Your task to perform on an android device: toggle improve location accuracy Image 0: 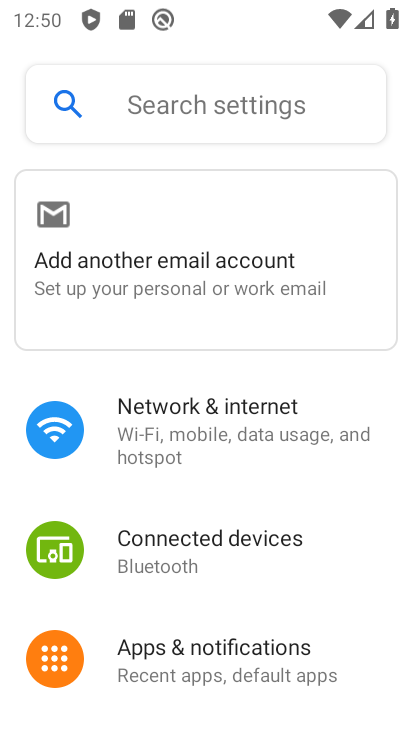
Step 0: press home button
Your task to perform on an android device: toggle improve location accuracy Image 1: 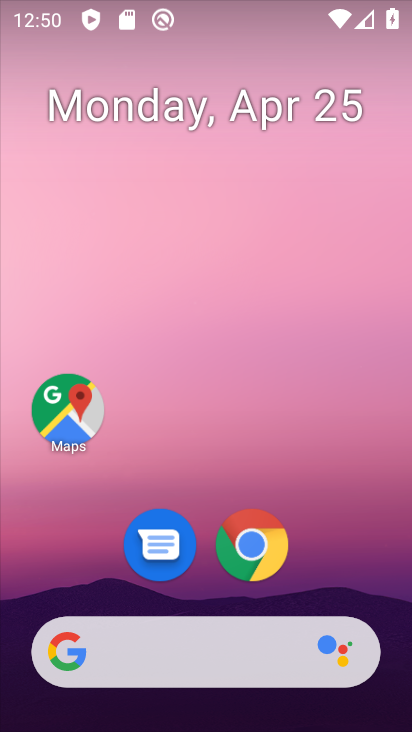
Step 1: drag from (288, 455) to (65, 139)
Your task to perform on an android device: toggle improve location accuracy Image 2: 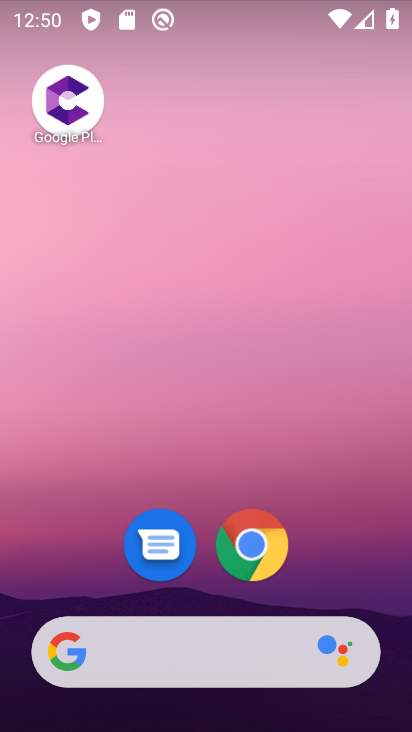
Step 2: drag from (313, 472) to (236, 48)
Your task to perform on an android device: toggle improve location accuracy Image 3: 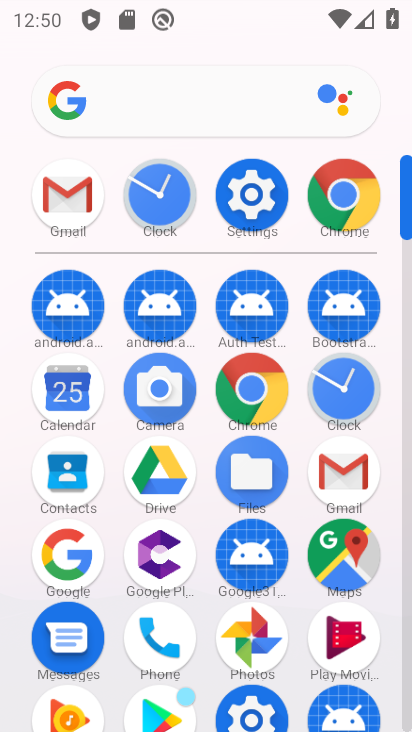
Step 3: click (262, 194)
Your task to perform on an android device: toggle improve location accuracy Image 4: 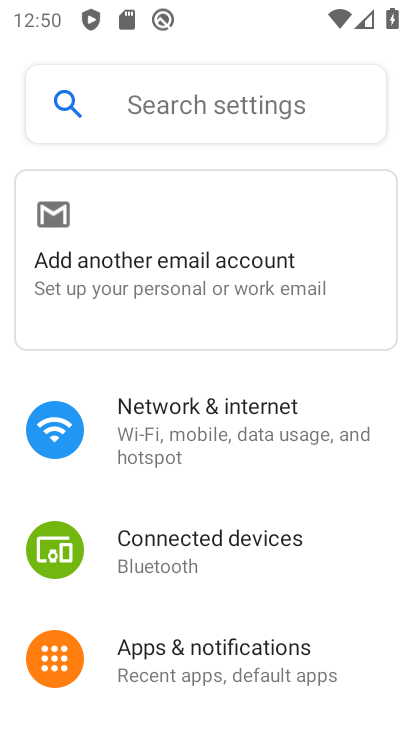
Step 4: drag from (173, 679) to (162, 172)
Your task to perform on an android device: toggle improve location accuracy Image 5: 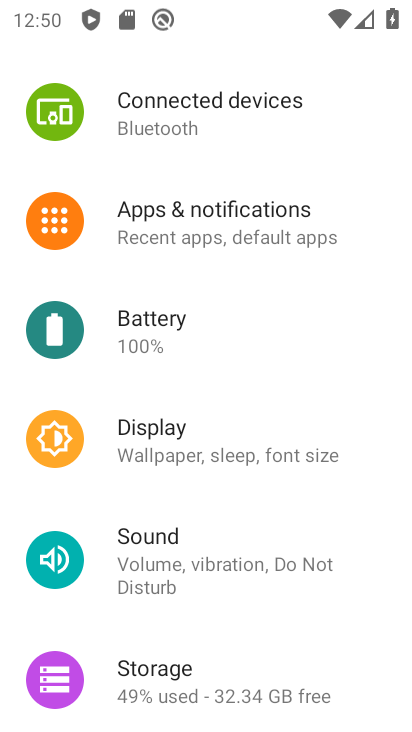
Step 5: drag from (198, 662) to (180, 143)
Your task to perform on an android device: toggle improve location accuracy Image 6: 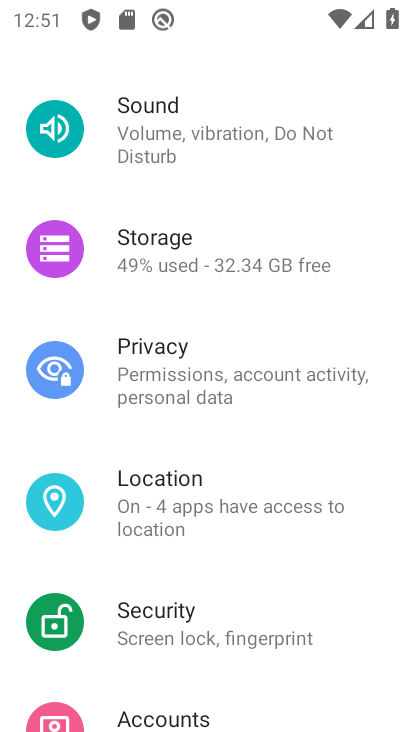
Step 6: click (165, 498)
Your task to perform on an android device: toggle improve location accuracy Image 7: 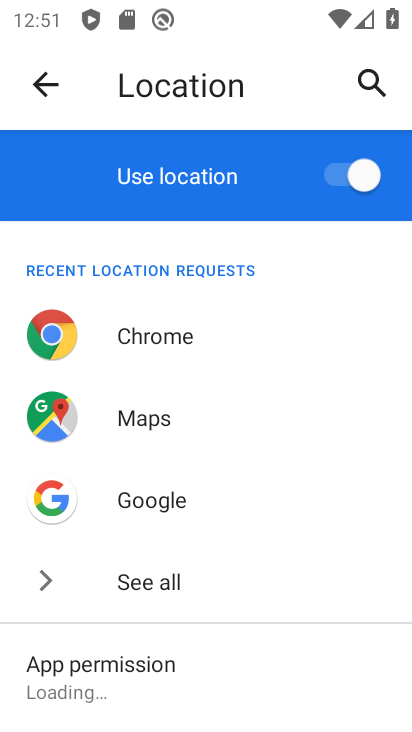
Step 7: drag from (178, 682) to (205, 286)
Your task to perform on an android device: toggle improve location accuracy Image 8: 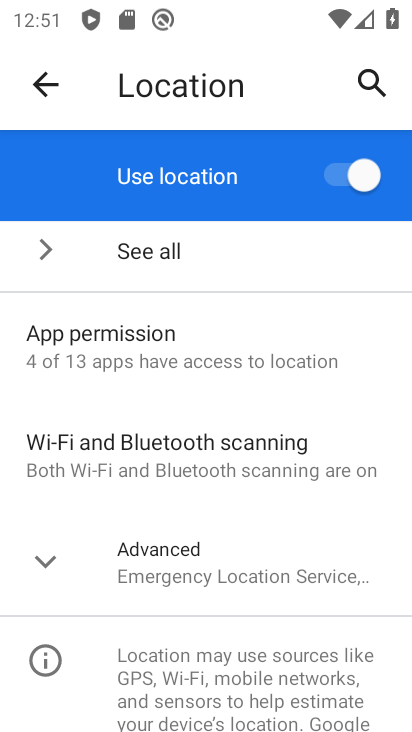
Step 8: click (189, 566)
Your task to perform on an android device: toggle improve location accuracy Image 9: 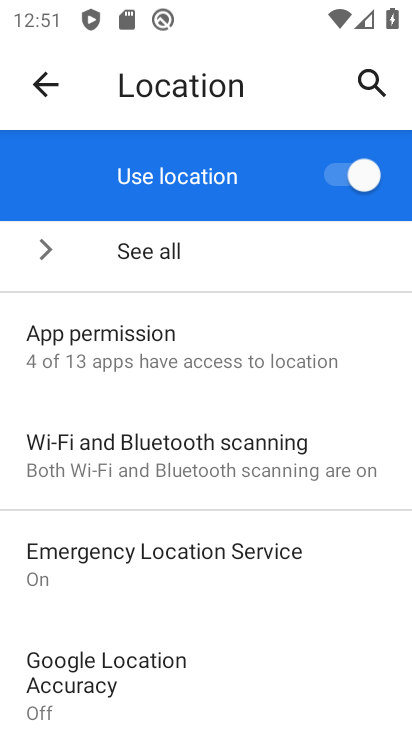
Step 9: click (85, 688)
Your task to perform on an android device: toggle improve location accuracy Image 10: 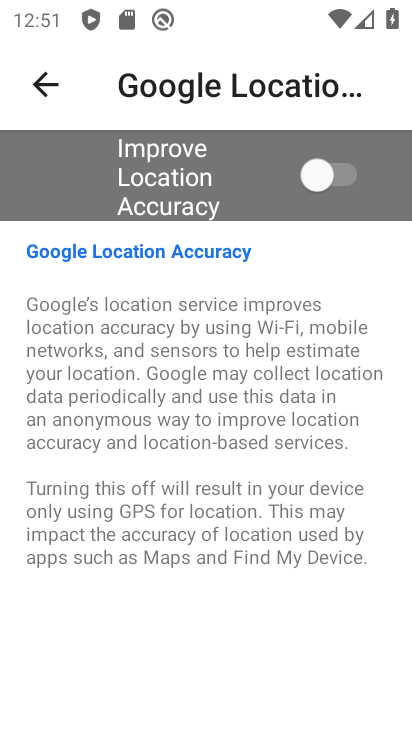
Step 10: click (335, 181)
Your task to perform on an android device: toggle improve location accuracy Image 11: 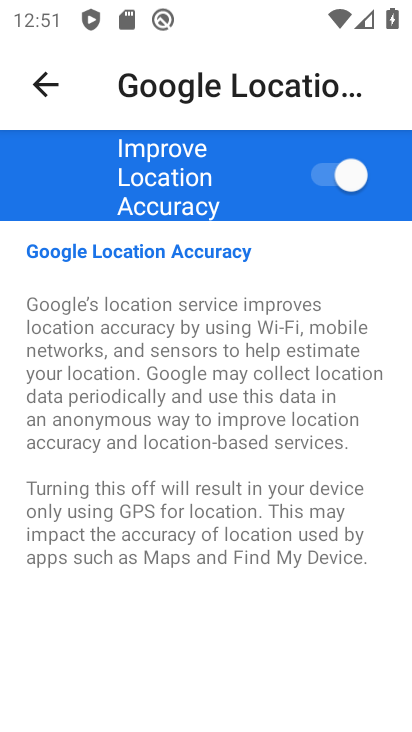
Step 11: task complete